Your task to perform on an android device: delete the emails in spam in the gmail app Image 0: 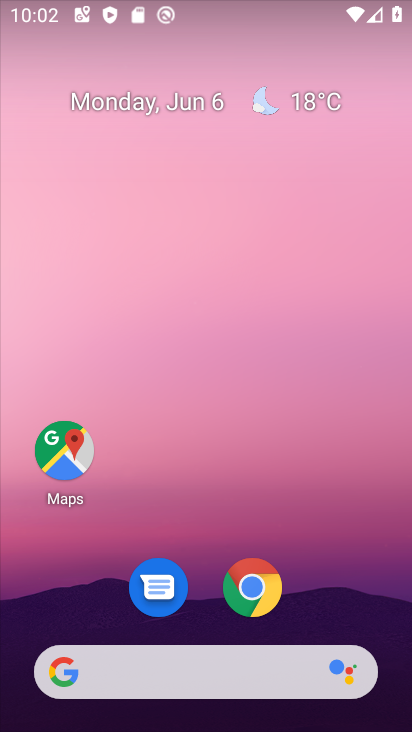
Step 0: drag from (330, 587) to (347, 102)
Your task to perform on an android device: delete the emails in spam in the gmail app Image 1: 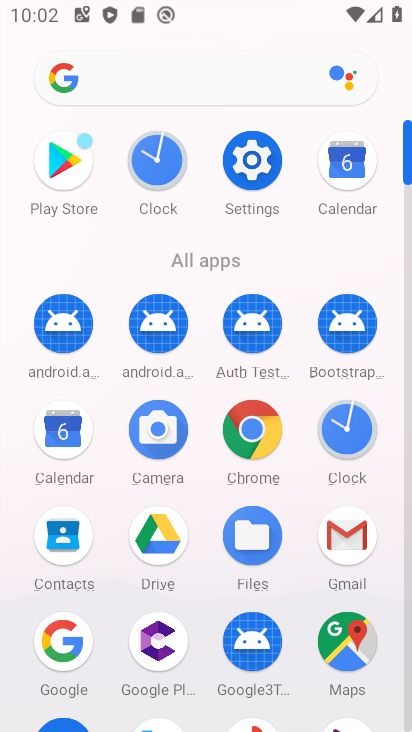
Step 1: click (339, 541)
Your task to perform on an android device: delete the emails in spam in the gmail app Image 2: 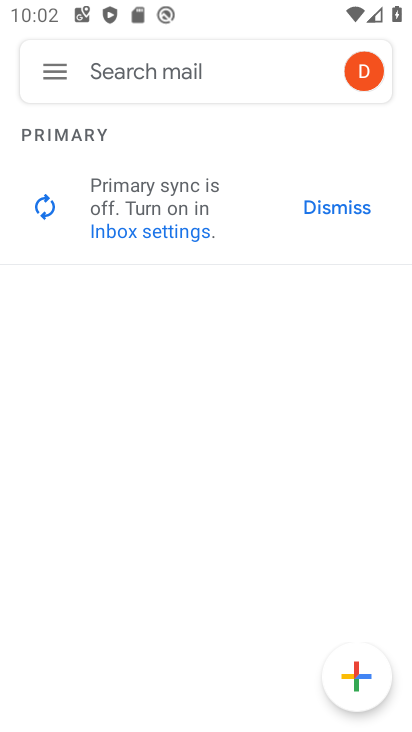
Step 2: click (55, 74)
Your task to perform on an android device: delete the emails in spam in the gmail app Image 3: 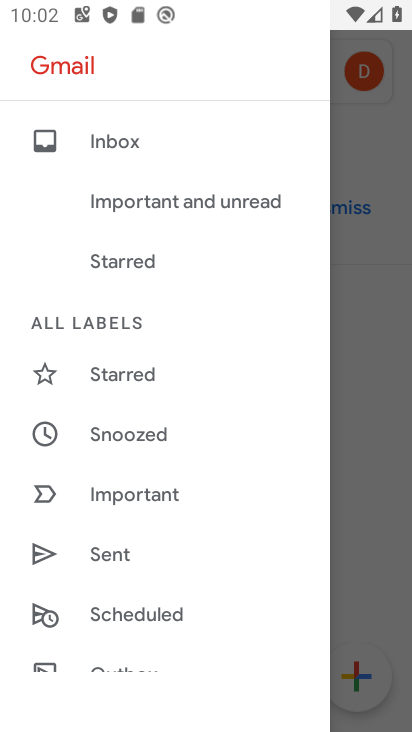
Step 3: drag from (231, 621) to (284, 179)
Your task to perform on an android device: delete the emails in spam in the gmail app Image 4: 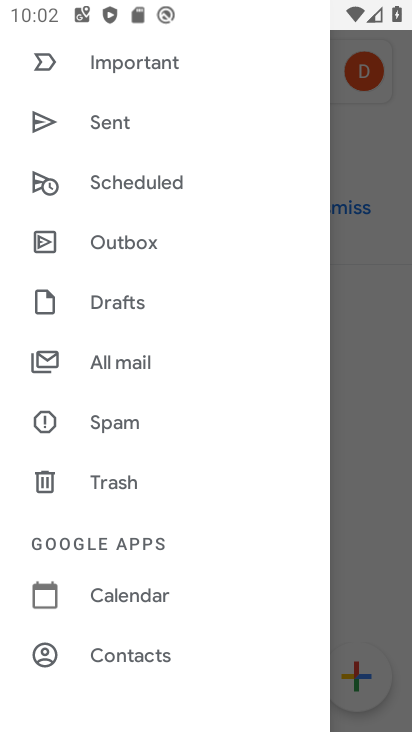
Step 4: click (143, 423)
Your task to perform on an android device: delete the emails in spam in the gmail app Image 5: 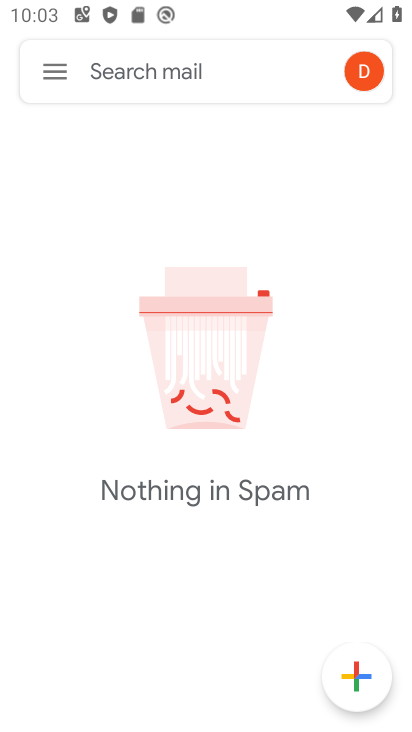
Step 5: task complete